Your task to perform on an android device: See recent photos Image 0: 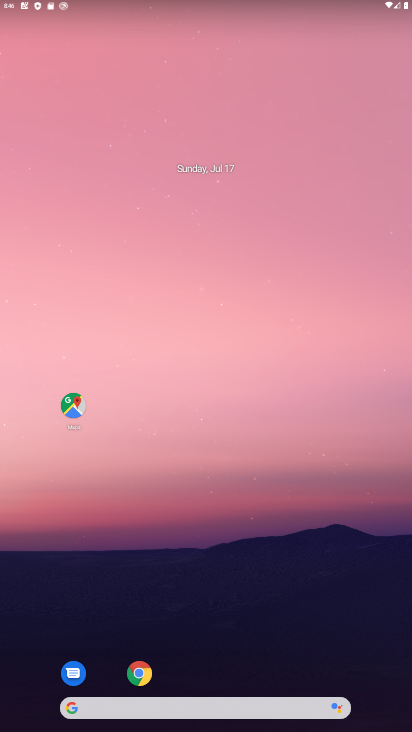
Step 0: drag from (278, 217) to (290, 54)
Your task to perform on an android device: See recent photos Image 1: 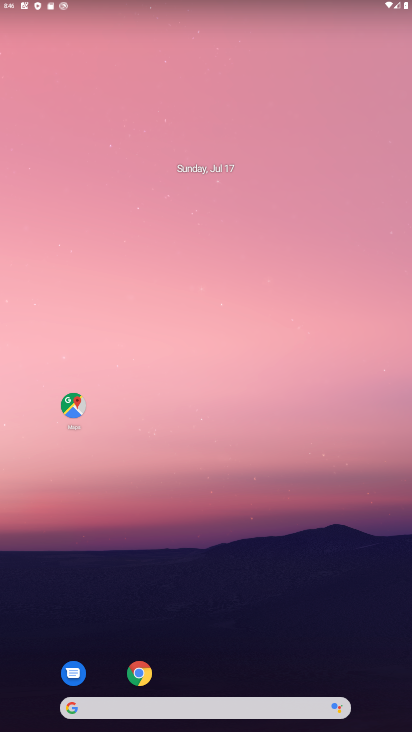
Step 1: drag from (215, 124) to (215, 30)
Your task to perform on an android device: See recent photos Image 2: 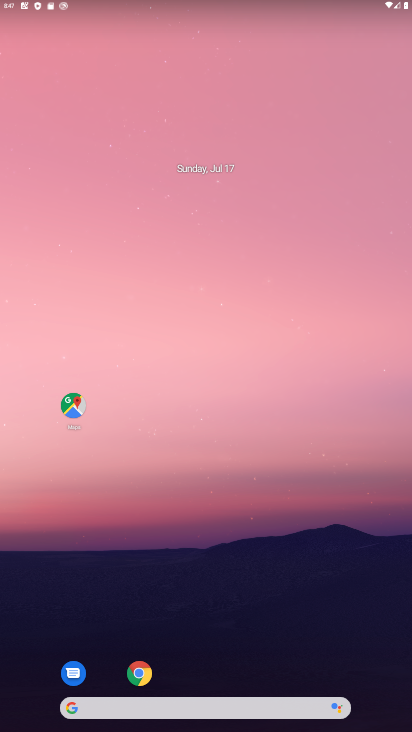
Step 2: drag from (282, 658) to (259, 94)
Your task to perform on an android device: See recent photos Image 3: 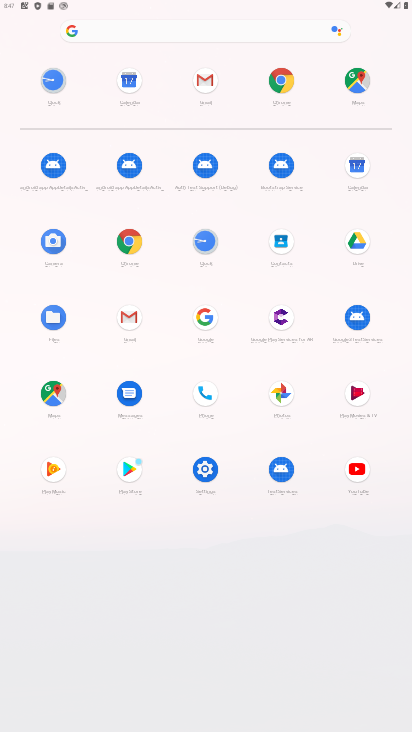
Step 3: click (287, 395)
Your task to perform on an android device: See recent photos Image 4: 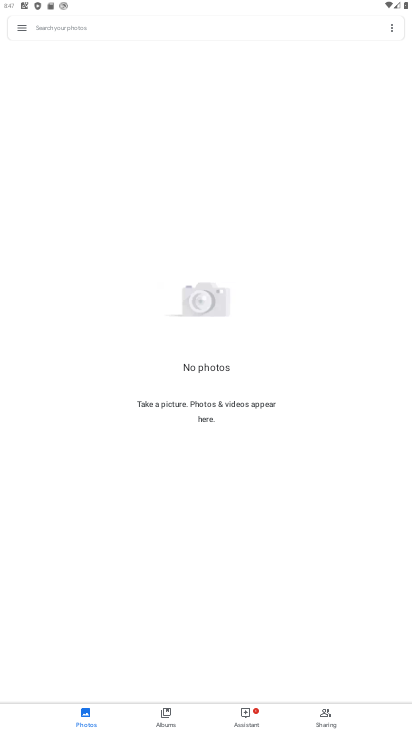
Step 4: task complete